Your task to perform on an android device: open app "Spotify" Image 0: 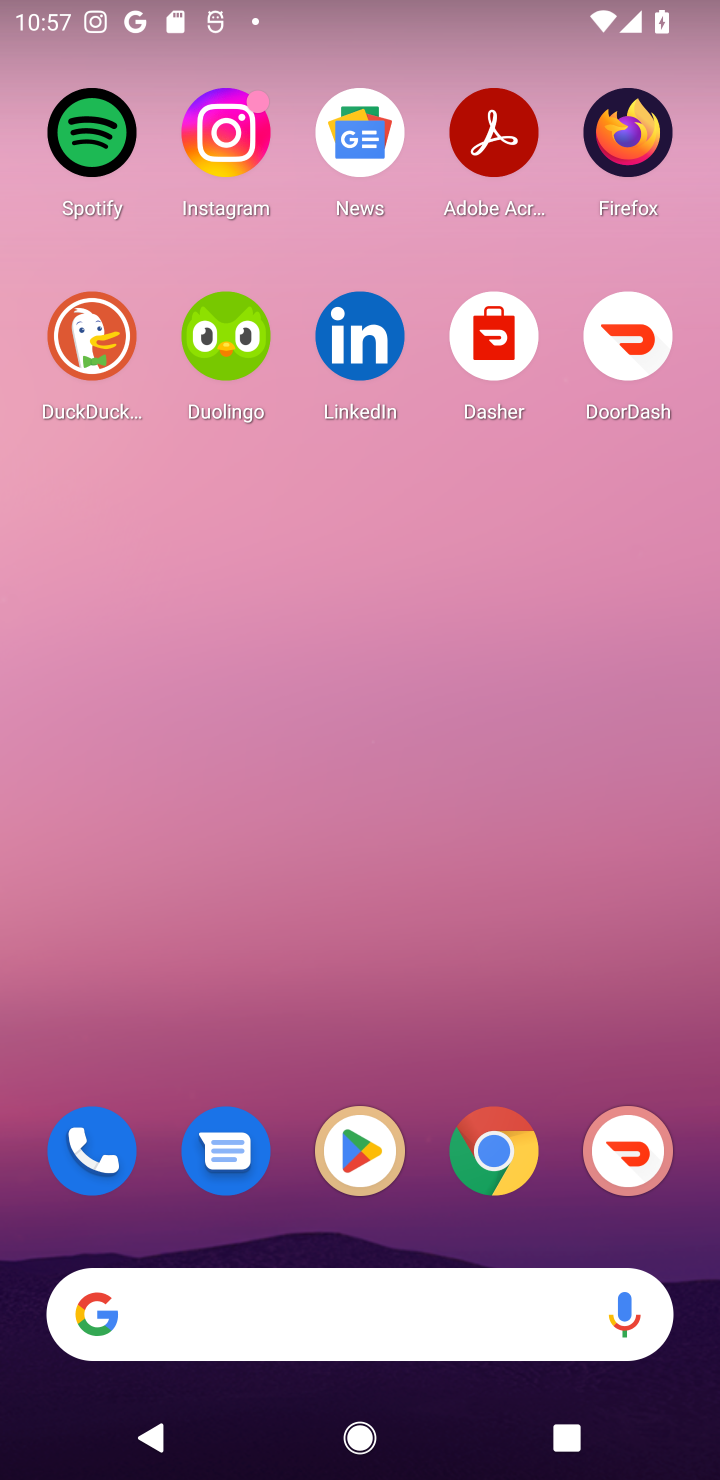
Step 0: click (94, 119)
Your task to perform on an android device: open app "Spotify" Image 1: 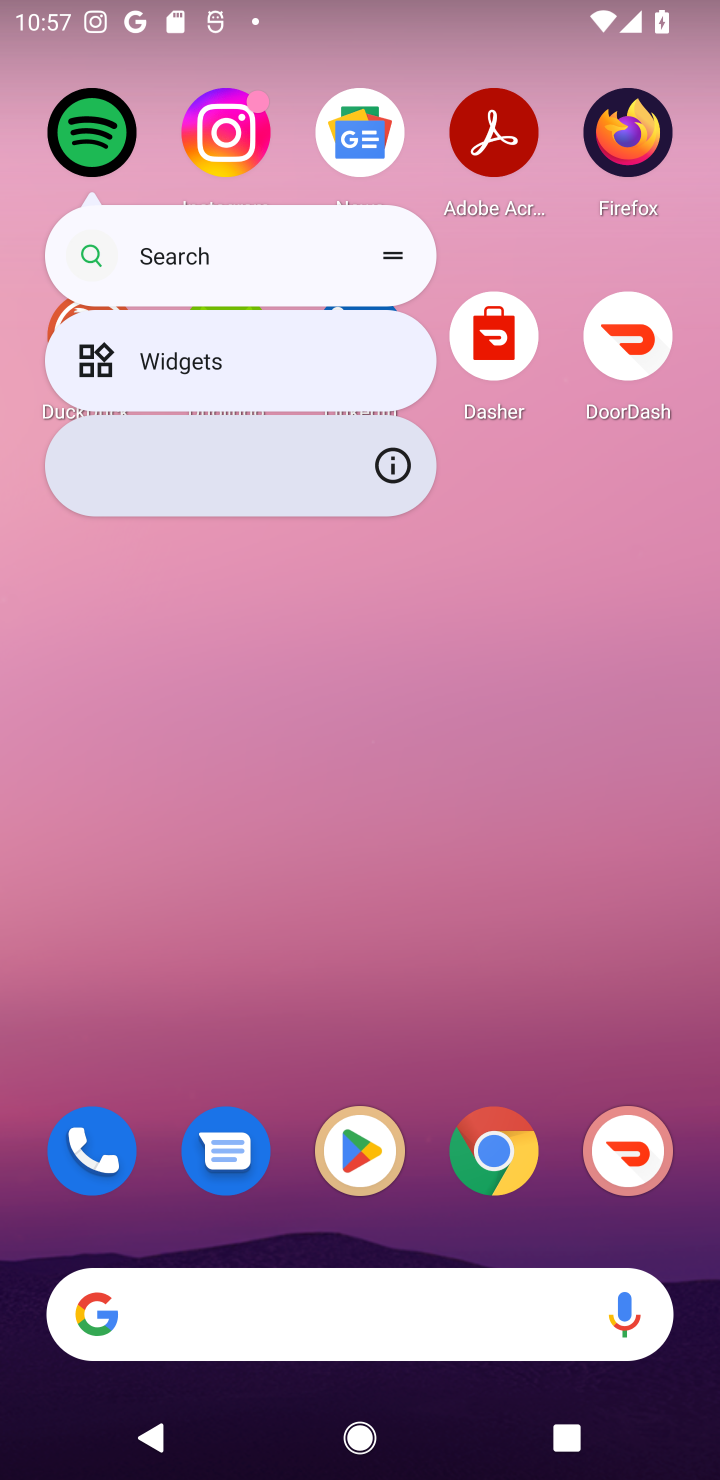
Step 1: click (93, 119)
Your task to perform on an android device: open app "Spotify" Image 2: 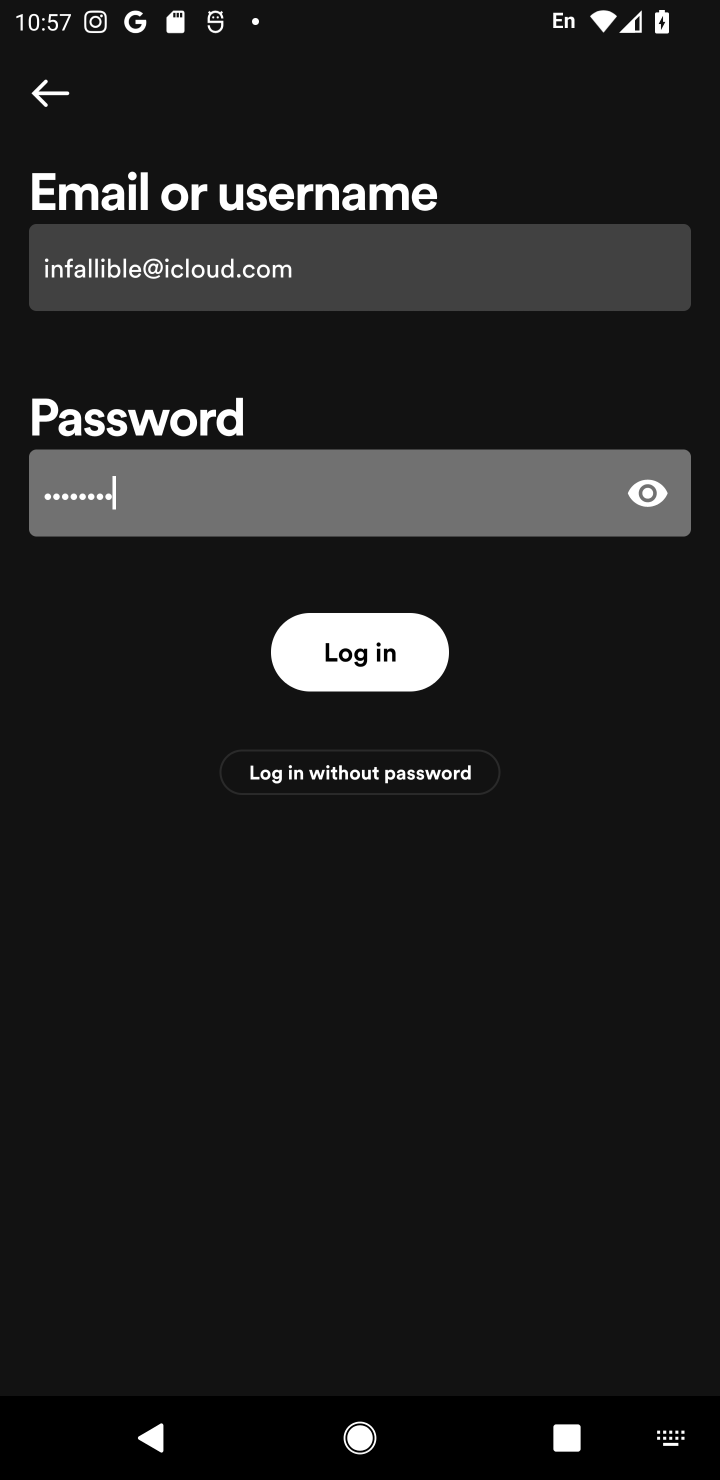
Step 2: task complete